Your task to perform on an android device: star an email in the gmail app Image 0: 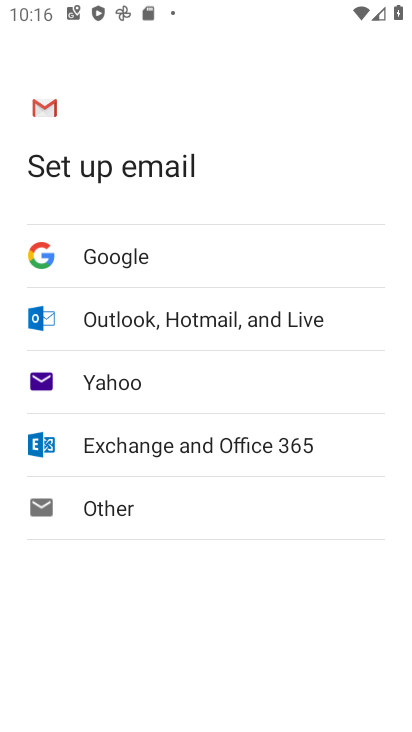
Step 0: press home button
Your task to perform on an android device: star an email in the gmail app Image 1: 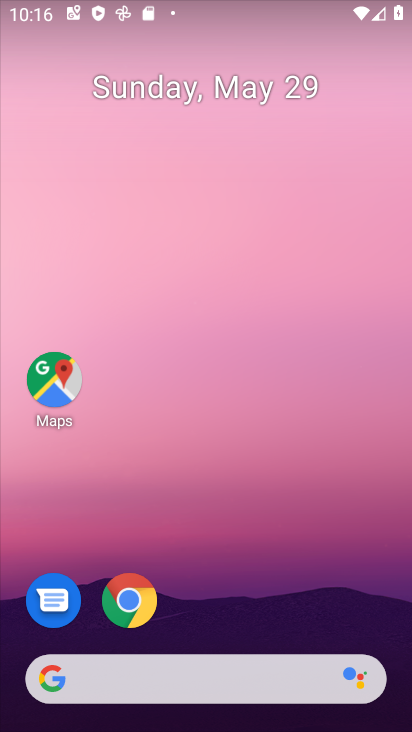
Step 1: drag from (168, 718) to (175, 249)
Your task to perform on an android device: star an email in the gmail app Image 2: 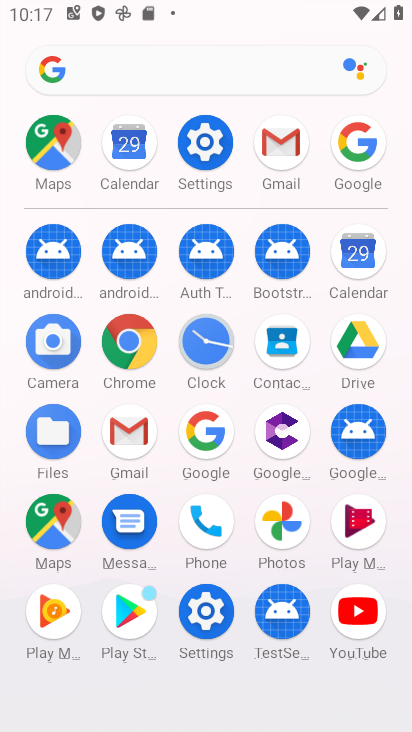
Step 2: click (121, 430)
Your task to perform on an android device: star an email in the gmail app Image 3: 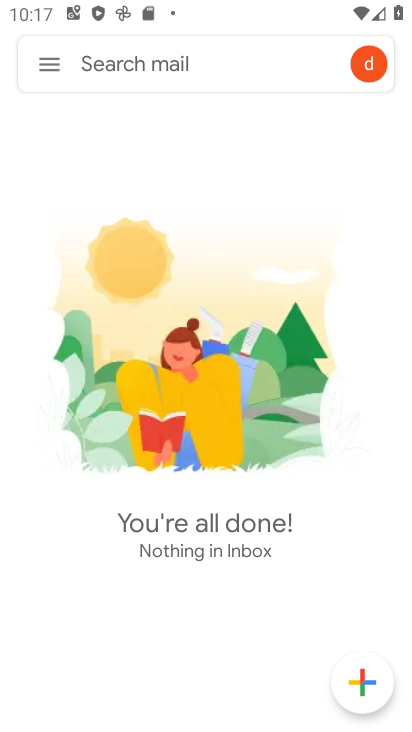
Step 3: click (51, 69)
Your task to perform on an android device: star an email in the gmail app Image 4: 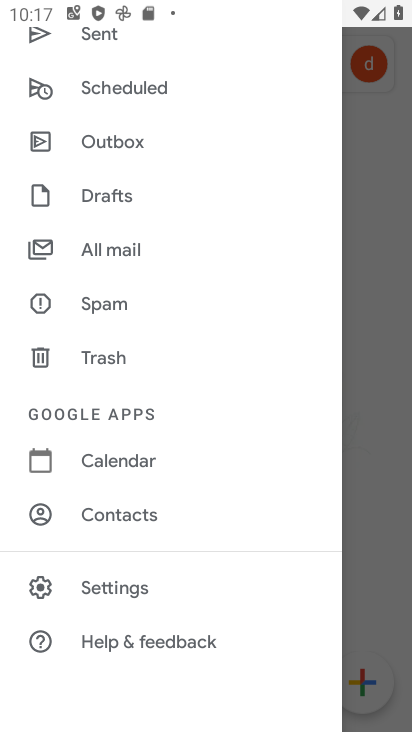
Step 4: drag from (148, 208) to (174, 555)
Your task to perform on an android device: star an email in the gmail app Image 5: 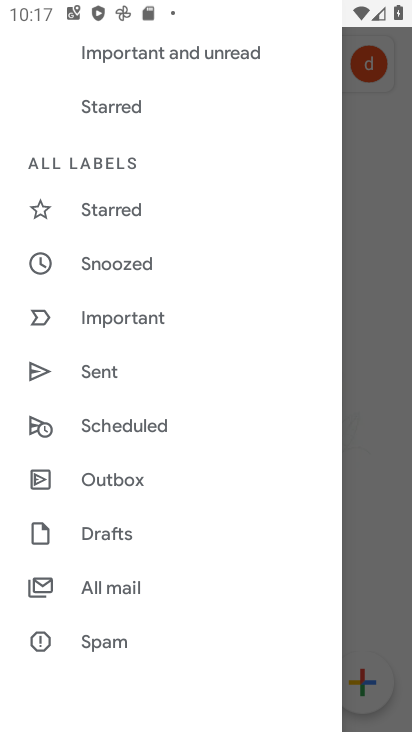
Step 5: drag from (133, 149) to (156, 579)
Your task to perform on an android device: star an email in the gmail app Image 6: 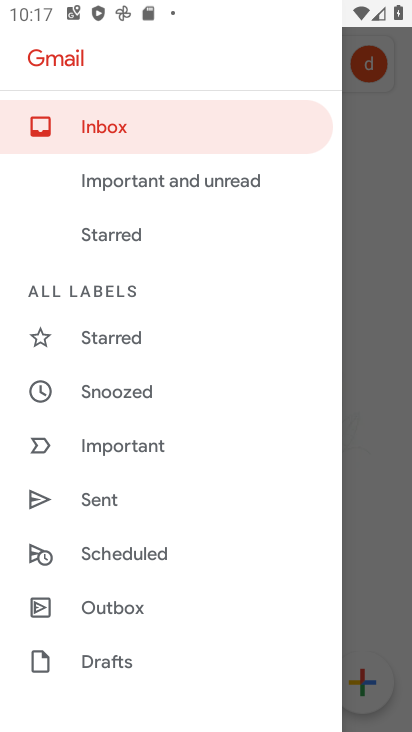
Step 6: drag from (154, 236) to (165, 696)
Your task to perform on an android device: star an email in the gmail app Image 7: 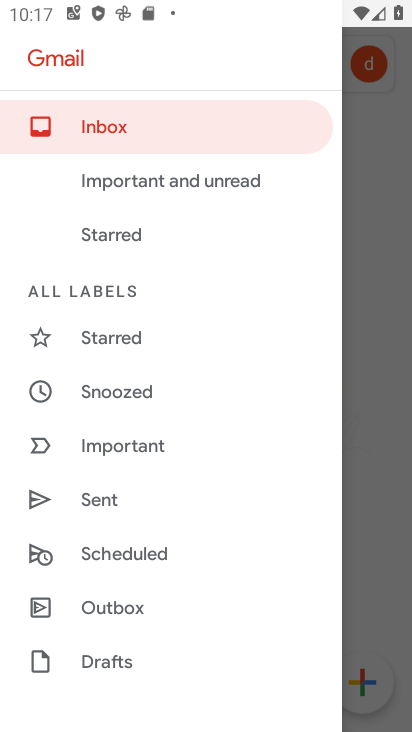
Step 7: drag from (150, 653) to (149, 164)
Your task to perform on an android device: star an email in the gmail app Image 8: 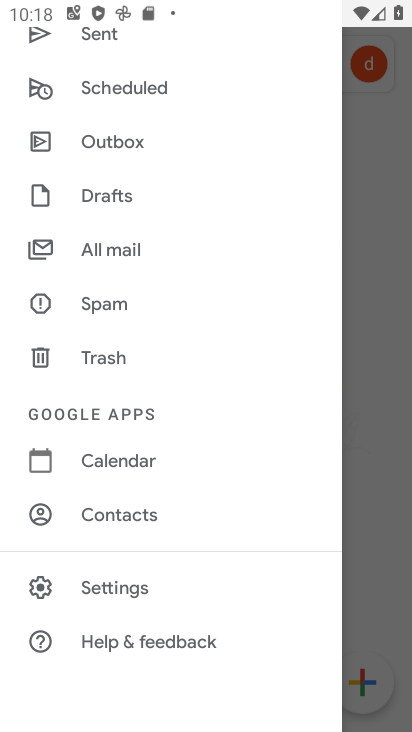
Step 8: drag from (190, 206) to (199, 680)
Your task to perform on an android device: star an email in the gmail app Image 9: 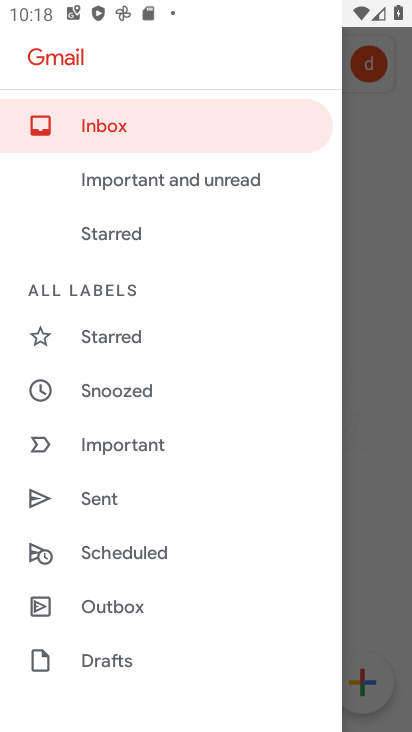
Step 9: click (115, 127)
Your task to perform on an android device: star an email in the gmail app Image 10: 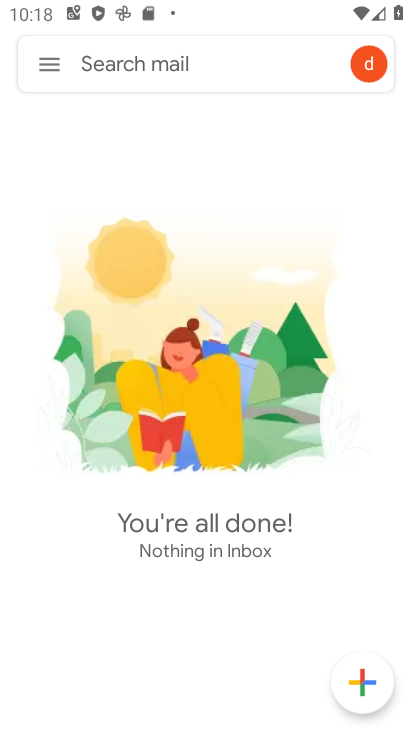
Step 10: task complete